Your task to perform on an android device: stop showing notifications on the lock screen Image 0: 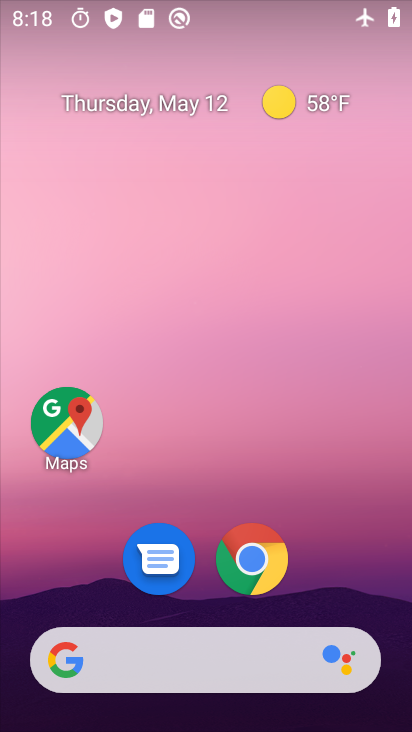
Step 0: drag from (331, 572) to (233, 151)
Your task to perform on an android device: stop showing notifications on the lock screen Image 1: 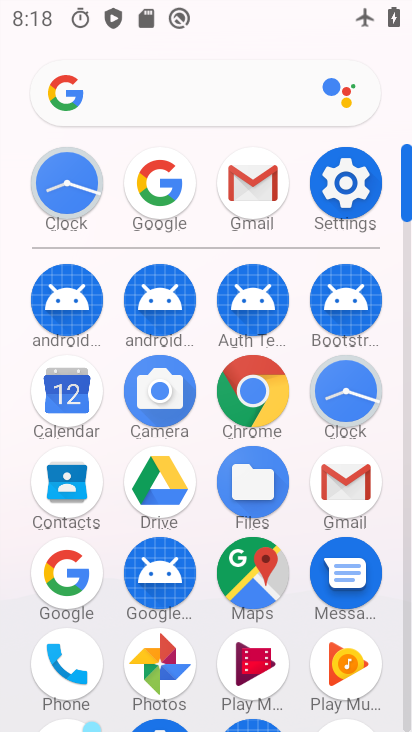
Step 1: click (345, 181)
Your task to perform on an android device: stop showing notifications on the lock screen Image 2: 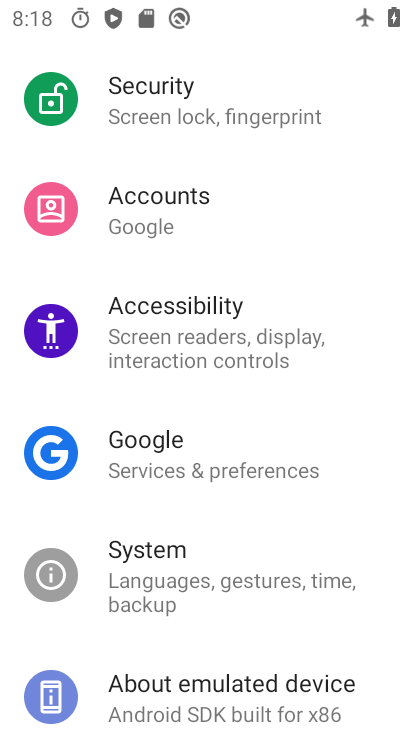
Step 2: drag from (255, 270) to (228, 380)
Your task to perform on an android device: stop showing notifications on the lock screen Image 3: 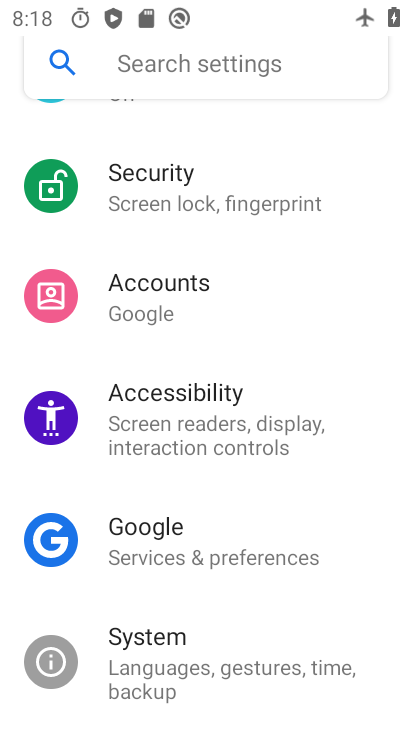
Step 3: drag from (211, 152) to (196, 272)
Your task to perform on an android device: stop showing notifications on the lock screen Image 4: 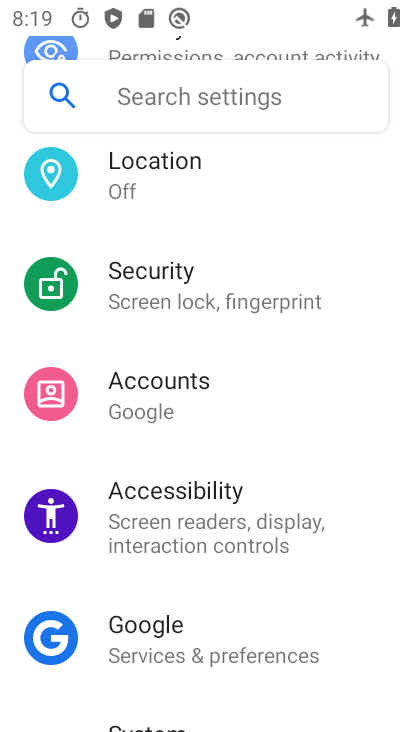
Step 4: drag from (244, 207) to (259, 322)
Your task to perform on an android device: stop showing notifications on the lock screen Image 5: 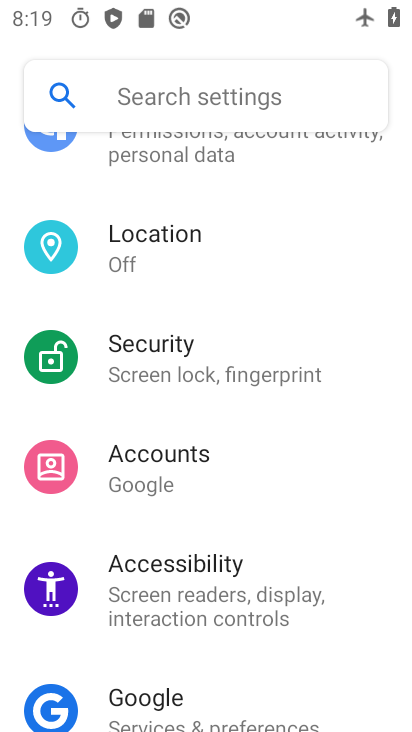
Step 5: drag from (224, 298) to (232, 440)
Your task to perform on an android device: stop showing notifications on the lock screen Image 6: 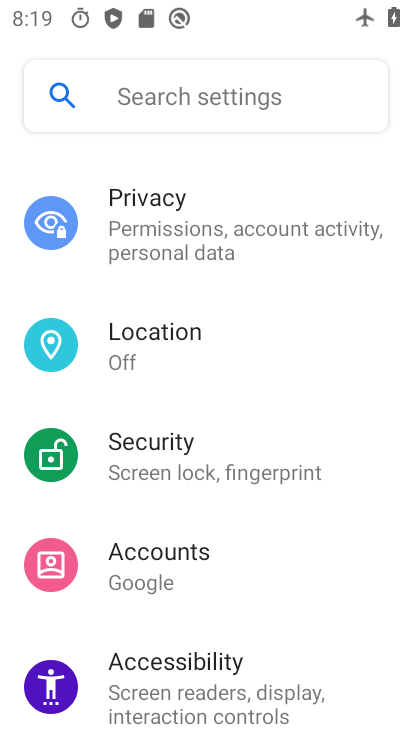
Step 6: drag from (249, 187) to (245, 399)
Your task to perform on an android device: stop showing notifications on the lock screen Image 7: 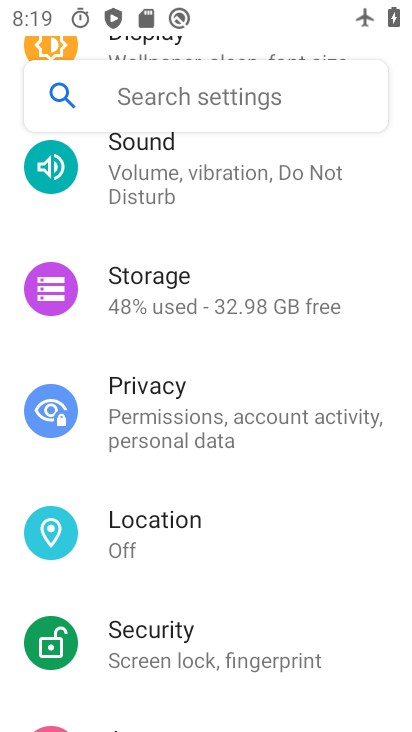
Step 7: drag from (235, 256) to (264, 387)
Your task to perform on an android device: stop showing notifications on the lock screen Image 8: 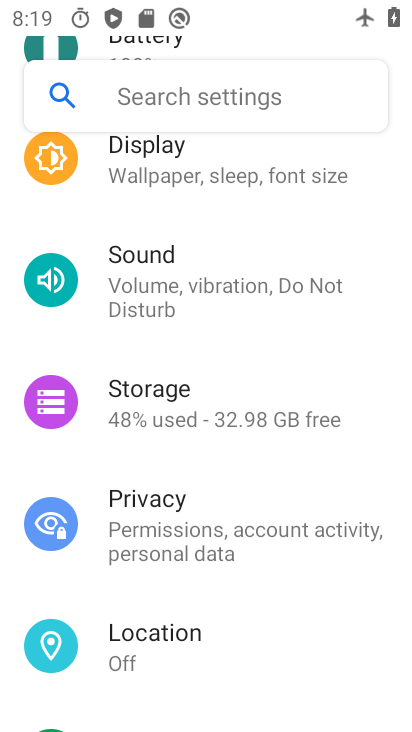
Step 8: drag from (224, 250) to (259, 395)
Your task to perform on an android device: stop showing notifications on the lock screen Image 9: 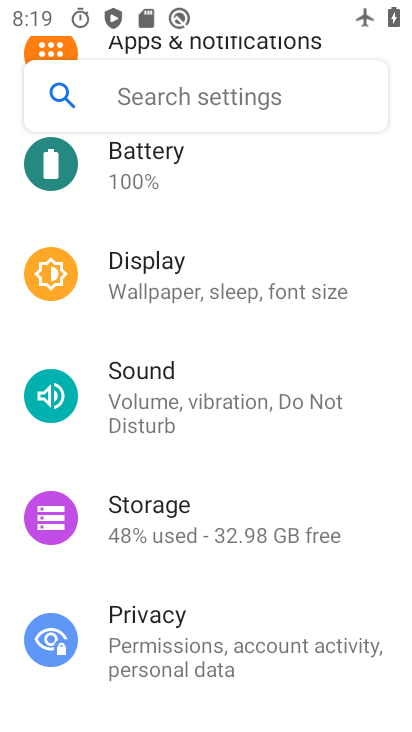
Step 9: drag from (250, 234) to (287, 397)
Your task to perform on an android device: stop showing notifications on the lock screen Image 10: 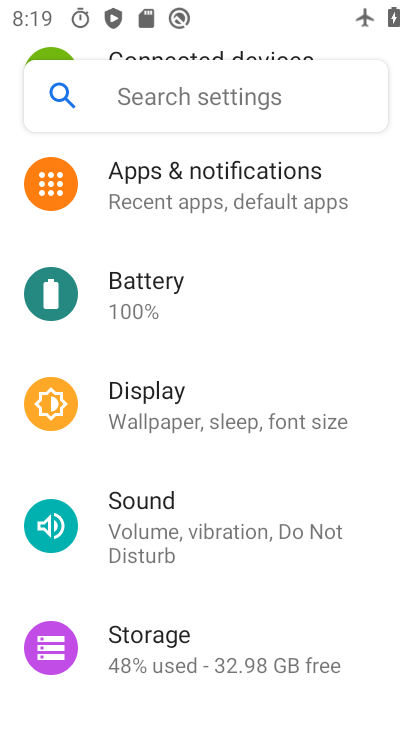
Step 10: click (249, 189)
Your task to perform on an android device: stop showing notifications on the lock screen Image 11: 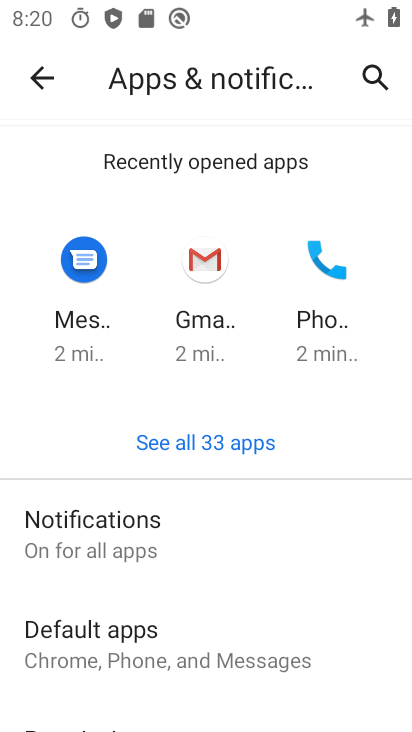
Step 11: click (91, 525)
Your task to perform on an android device: stop showing notifications on the lock screen Image 12: 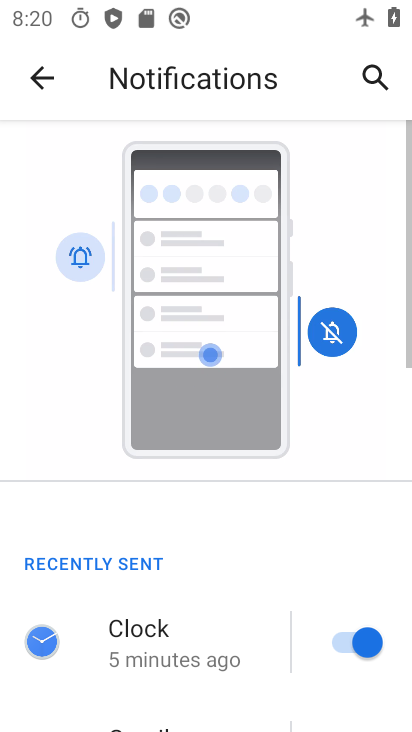
Step 12: drag from (205, 571) to (284, 221)
Your task to perform on an android device: stop showing notifications on the lock screen Image 13: 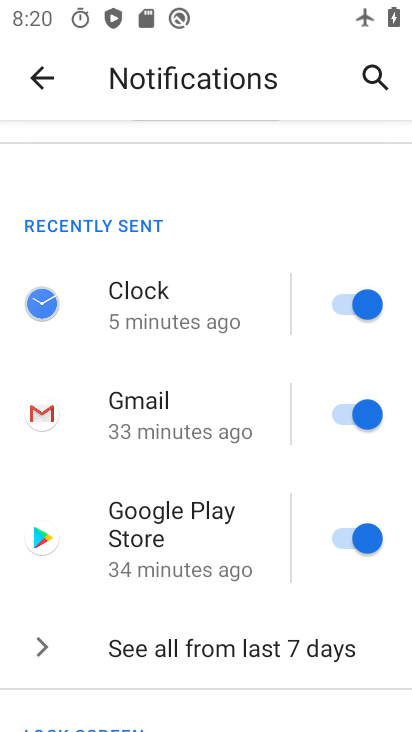
Step 13: drag from (167, 596) to (254, 371)
Your task to perform on an android device: stop showing notifications on the lock screen Image 14: 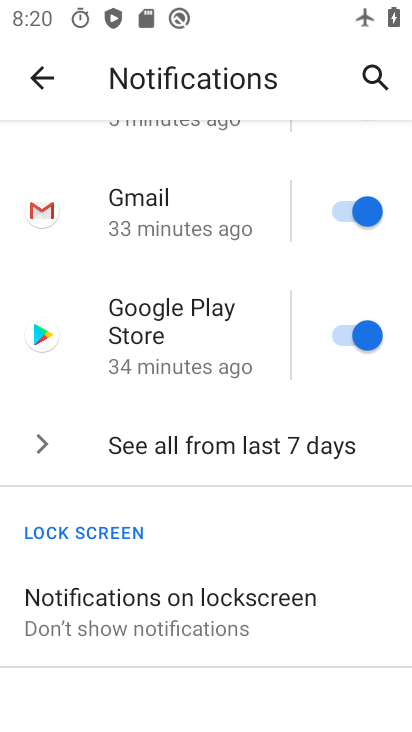
Step 14: click (229, 588)
Your task to perform on an android device: stop showing notifications on the lock screen Image 15: 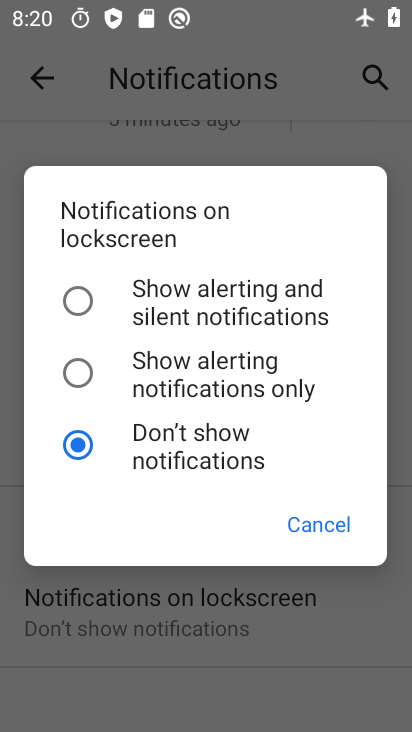
Step 15: click (74, 445)
Your task to perform on an android device: stop showing notifications on the lock screen Image 16: 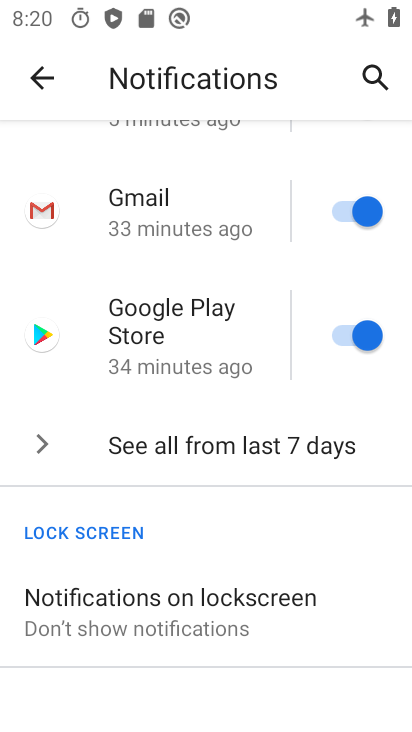
Step 16: task complete